Your task to perform on an android device: check data usage Image 0: 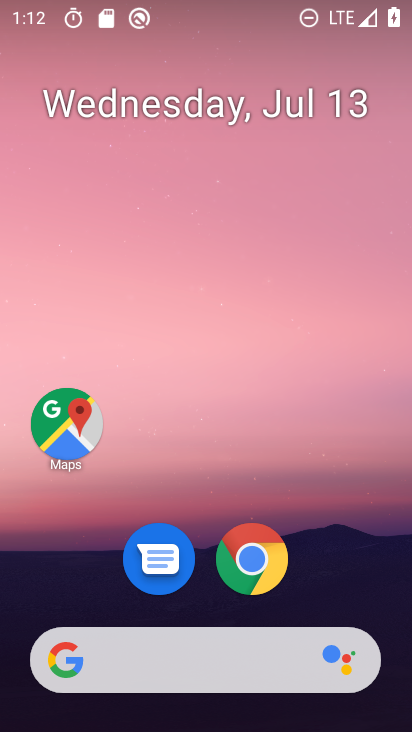
Step 0: drag from (250, 608) to (255, 328)
Your task to perform on an android device: check data usage Image 1: 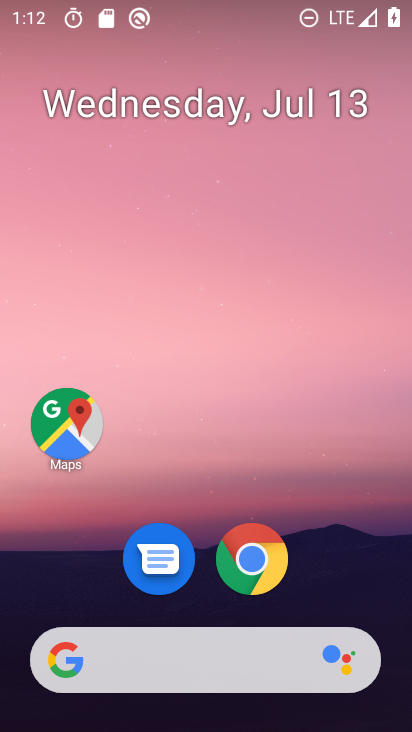
Step 1: drag from (213, 676) to (250, 265)
Your task to perform on an android device: check data usage Image 2: 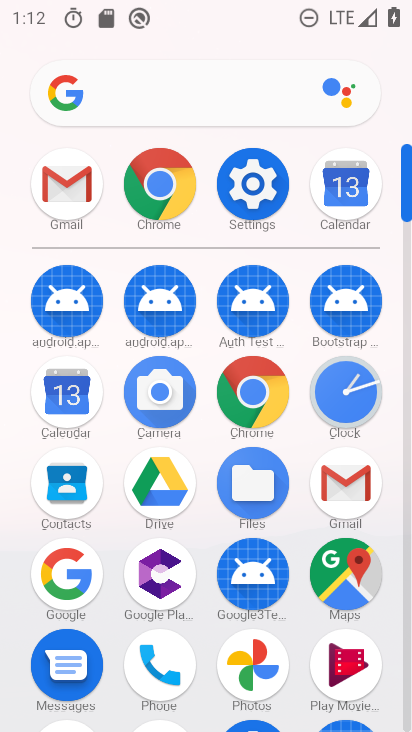
Step 2: click (265, 199)
Your task to perform on an android device: check data usage Image 3: 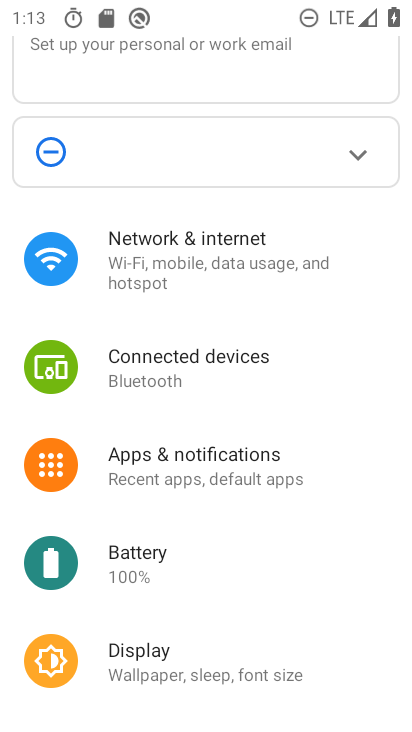
Step 3: drag from (223, 543) to (207, 345)
Your task to perform on an android device: check data usage Image 4: 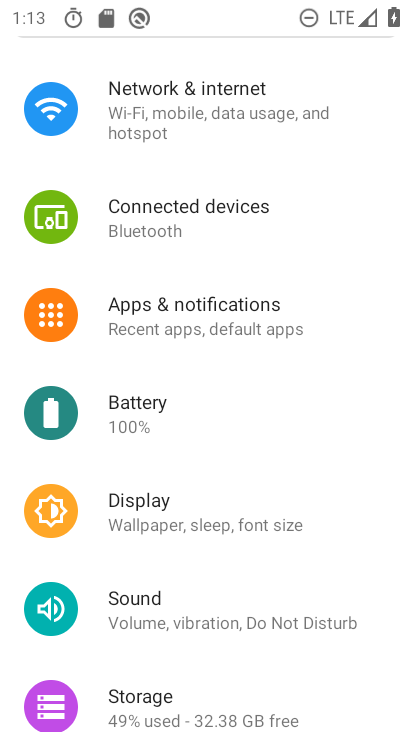
Step 4: click (168, 111)
Your task to perform on an android device: check data usage Image 5: 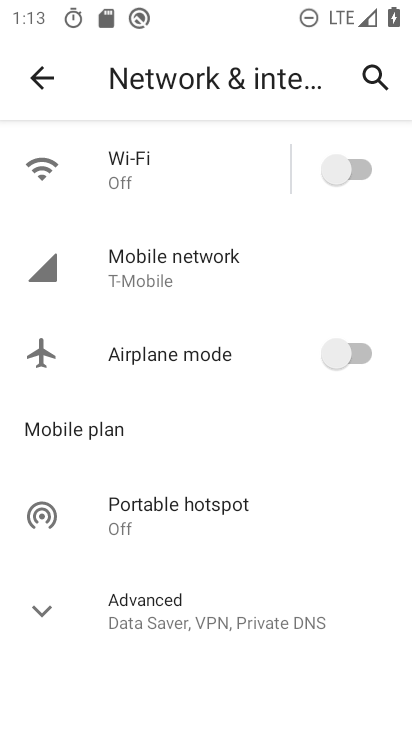
Step 5: click (149, 273)
Your task to perform on an android device: check data usage Image 6: 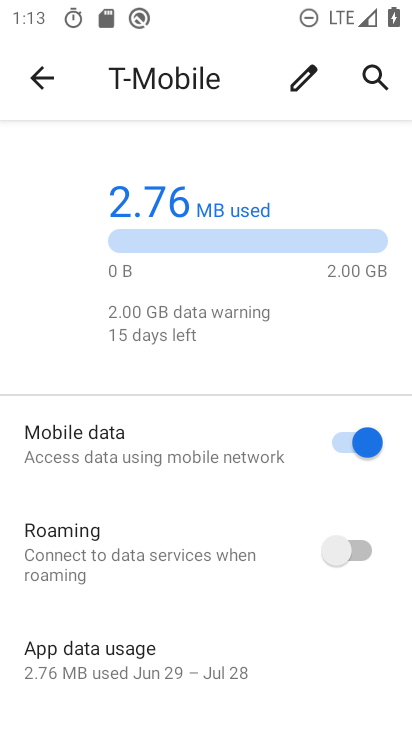
Step 6: drag from (130, 566) to (180, 376)
Your task to perform on an android device: check data usage Image 7: 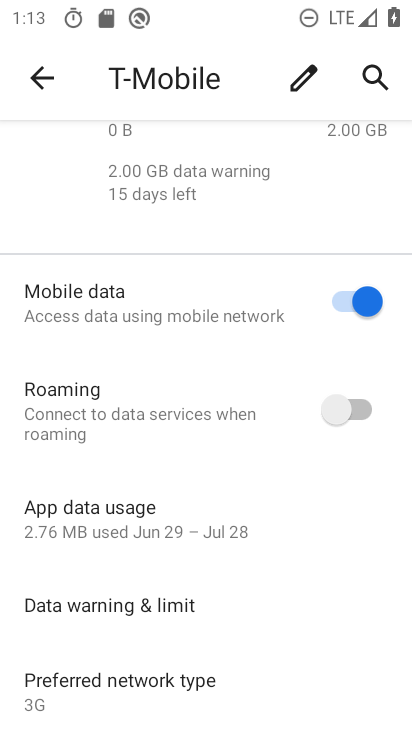
Step 7: click (172, 525)
Your task to perform on an android device: check data usage Image 8: 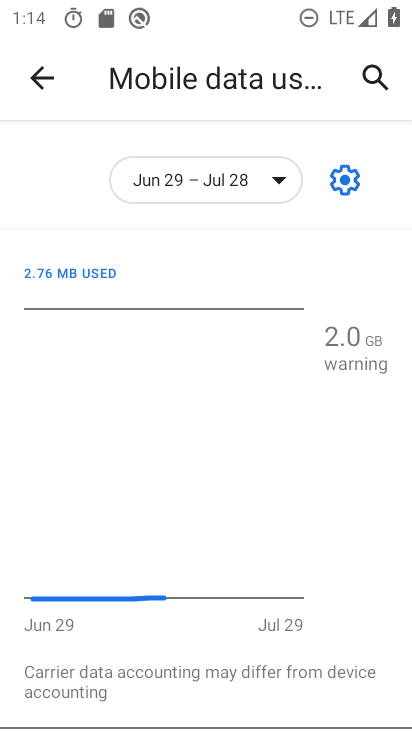
Step 8: task complete